Your task to perform on an android device: Search for flights from Boston to Sydney Image 0: 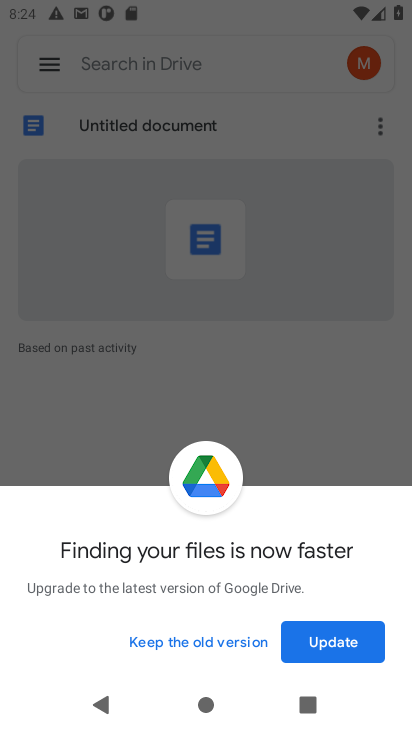
Step 0: press home button
Your task to perform on an android device: Search for flights from Boston to Sydney Image 1: 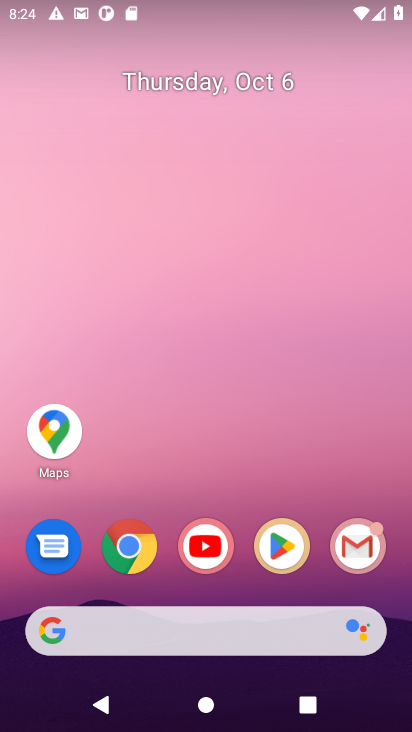
Step 1: click (132, 547)
Your task to perform on an android device: Search for flights from Boston to Sydney Image 2: 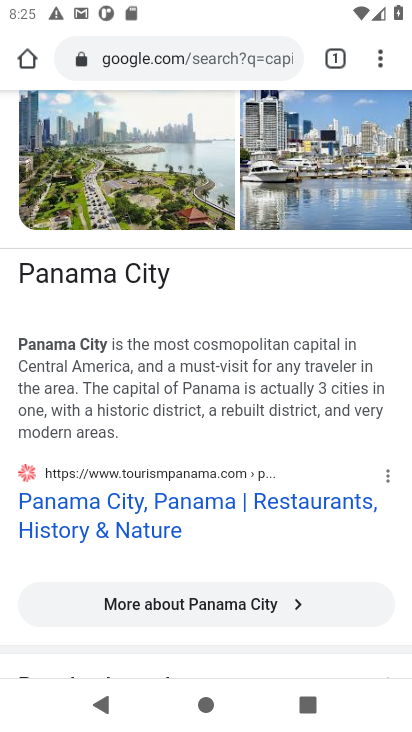
Step 2: click (204, 37)
Your task to perform on an android device: Search for flights from Boston to Sydney Image 3: 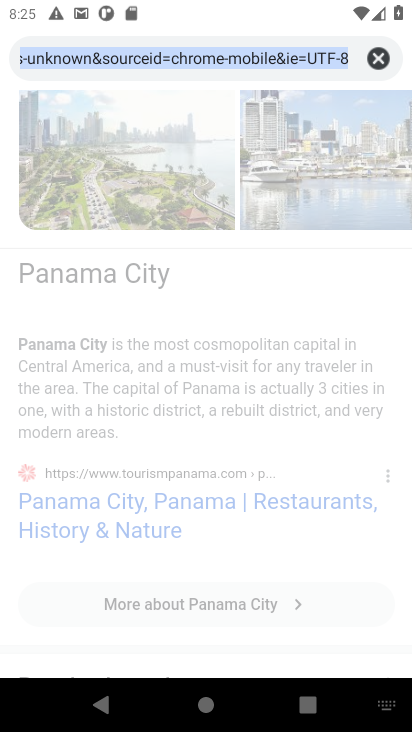
Step 3: click (376, 54)
Your task to perform on an android device: Search for flights from Boston to Sydney Image 4: 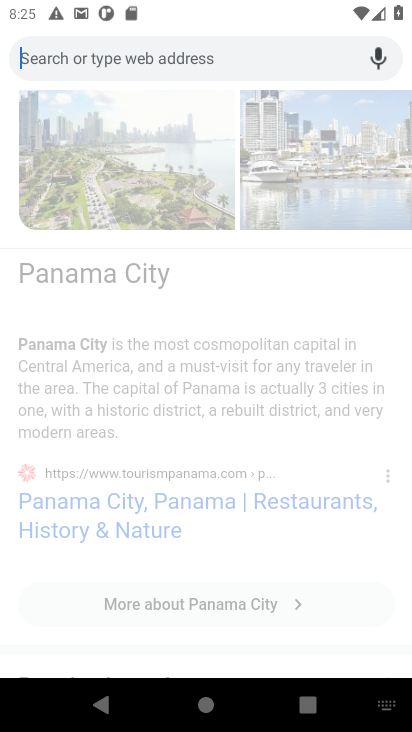
Step 4: type " flights from Boston to Sydney"
Your task to perform on an android device: Search for flights from Boston to Sydney Image 5: 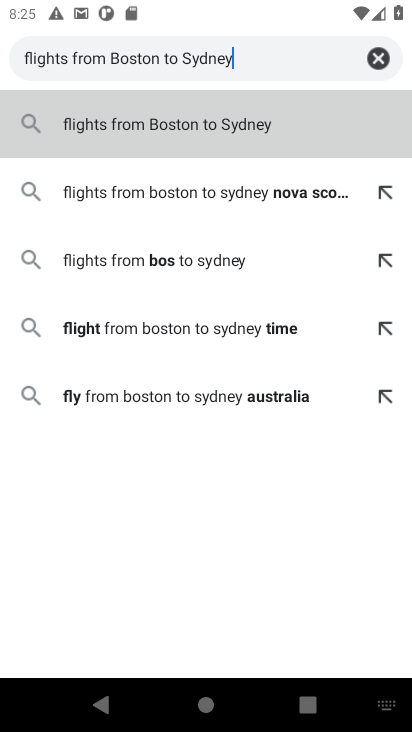
Step 5: click (103, 128)
Your task to perform on an android device: Search for flights from Boston to Sydney Image 6: 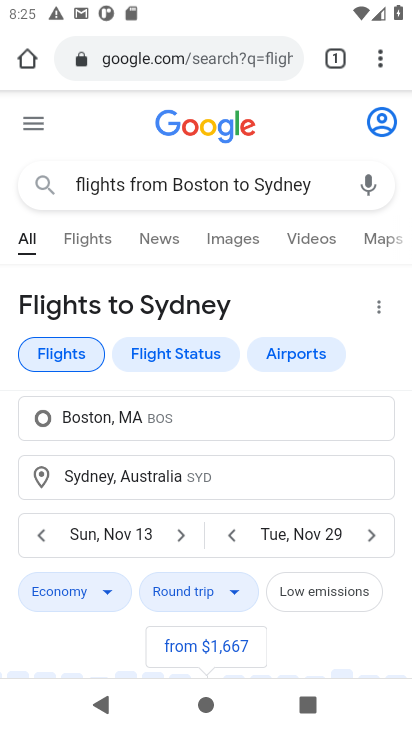
Step 6: drag from (189, 381) to (201, 144)
Your task to perform on an android device: Search for flights from Boston to Sydney Image 7: 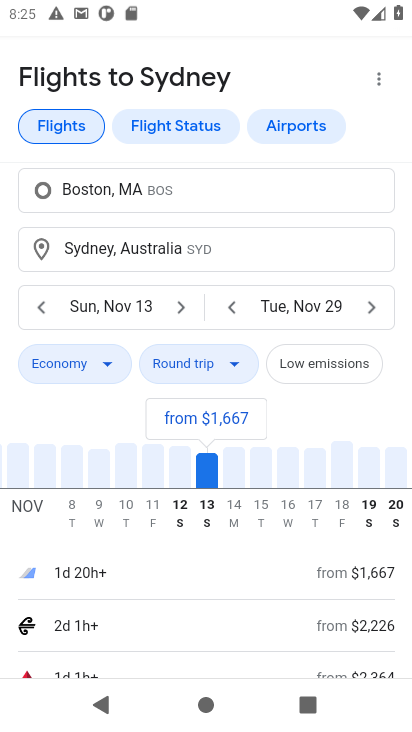
Step 7: drag from (281, 406) to (285, 193)
Your task to perform on an android device: Search for flights from Boston to Sydney Image 8: 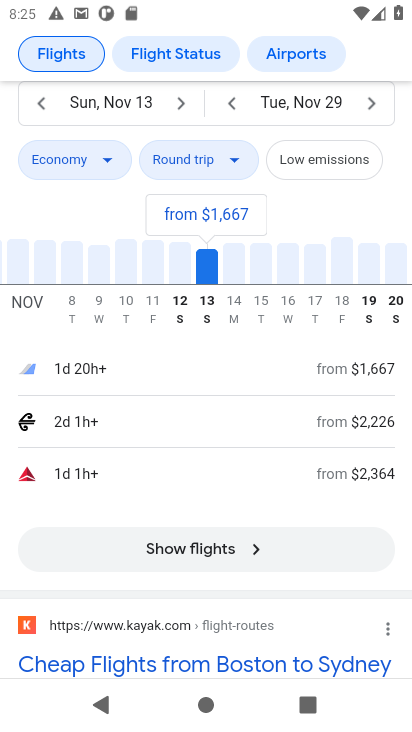
Step 8: click (192, 544)
Your task to perform on an android device: Search for flights from Boston to Sydney Image 9: 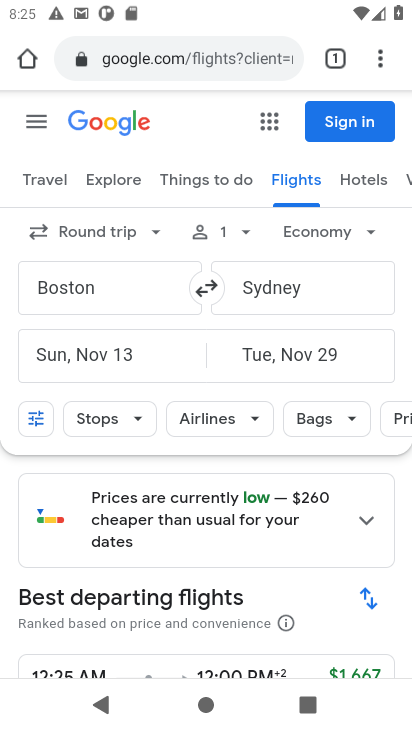
Step 9: task complete